Your task to perform on an android device: Open a new window in Chrome Image 0: 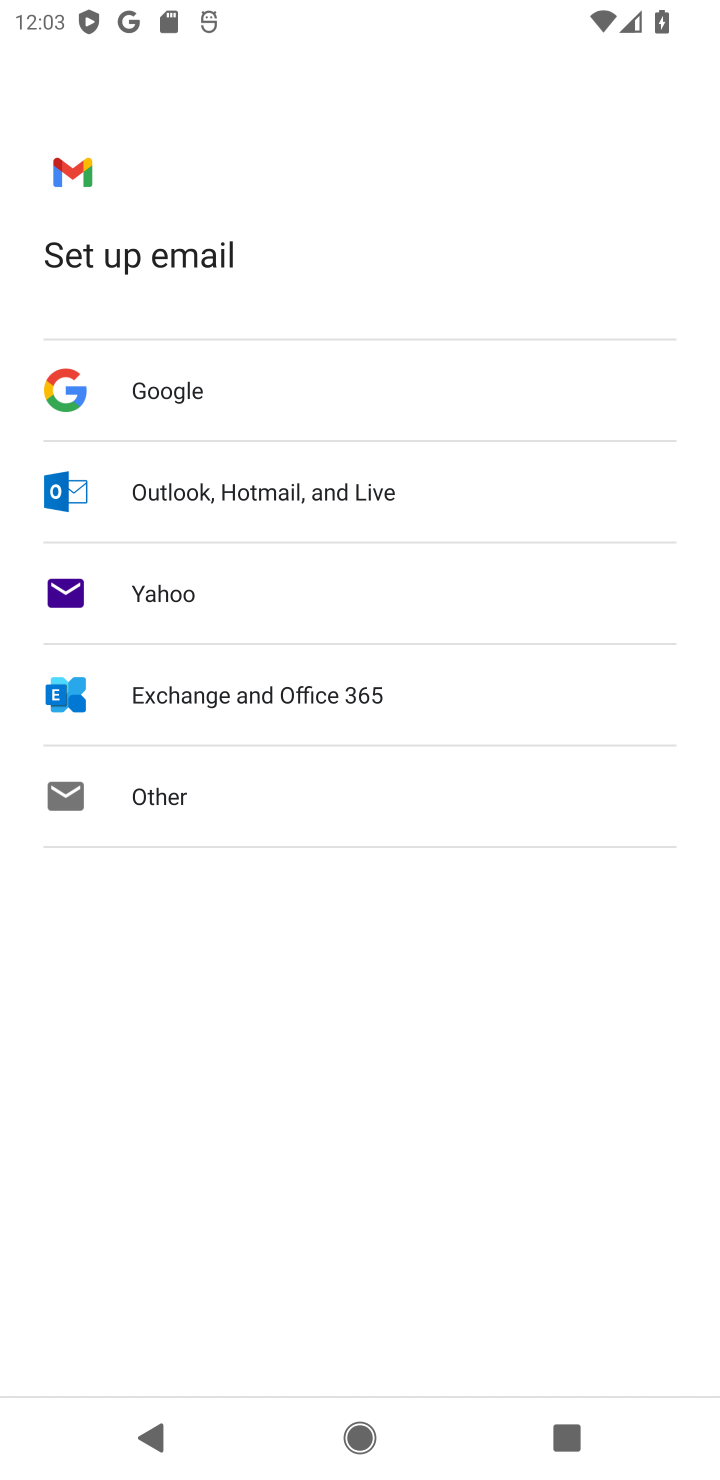
Step 0: press home button
Your task to perform on an android device: Open a new window in Chrome Image 1: 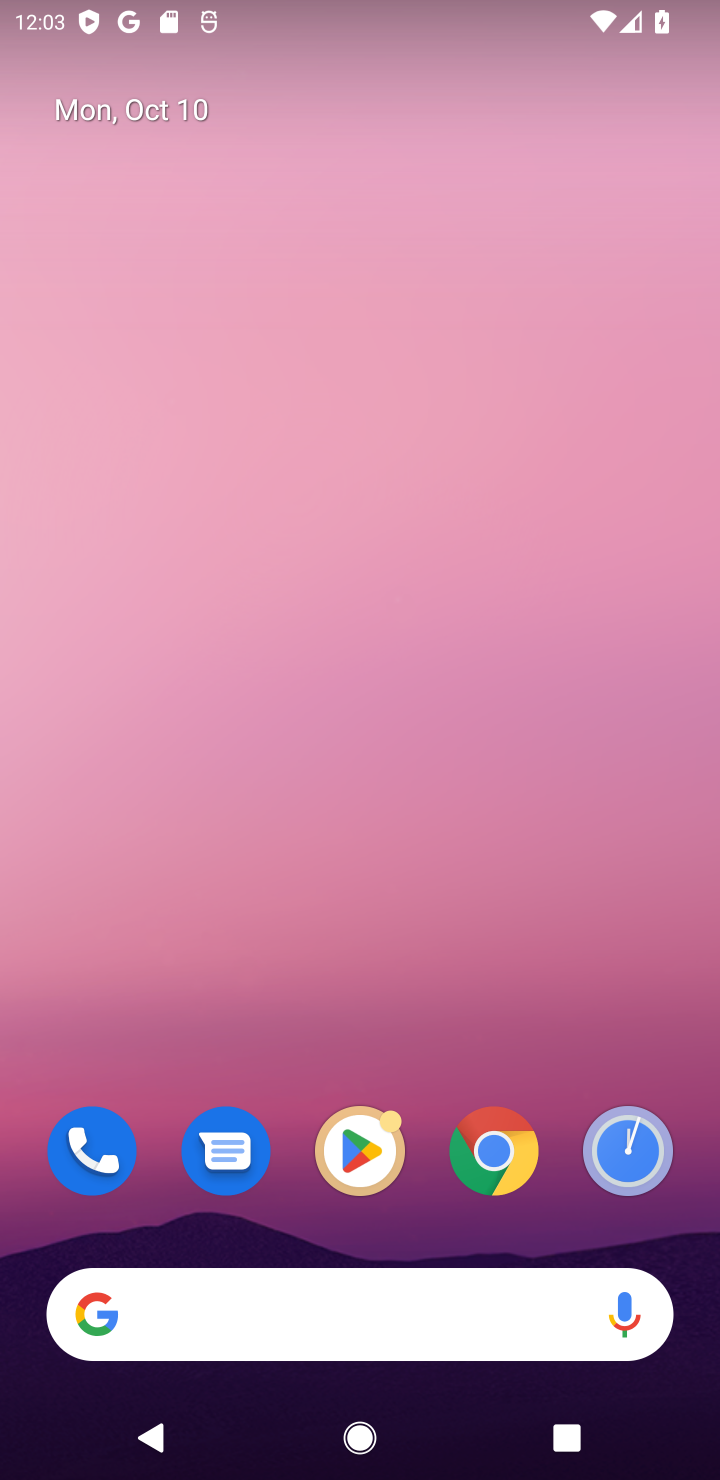
Step 1: click (492, 1158)
Your task to perform on an android device: Open a new window in Chrome Image 2: 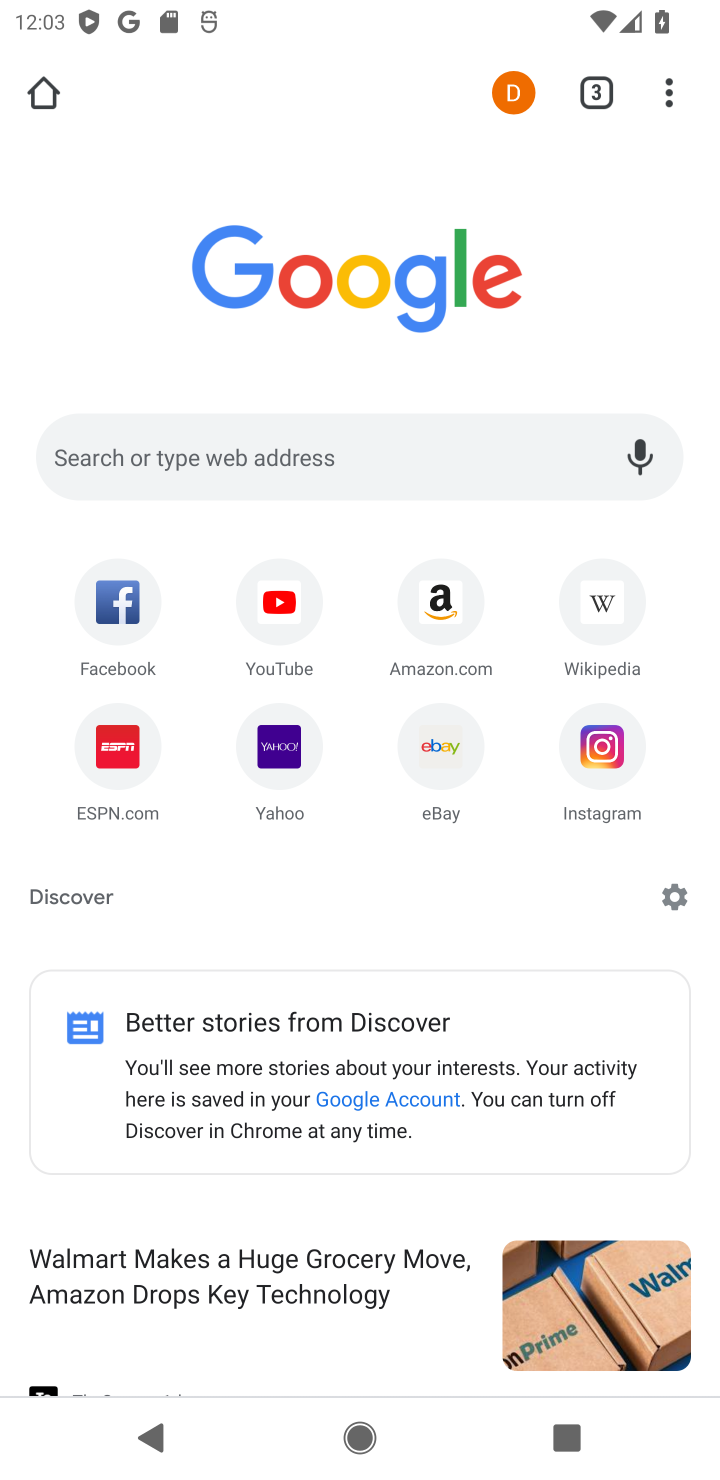
Step 2: click (663, 98)
Your task to perform on an android device: Open a new window in Chrome Image 3: 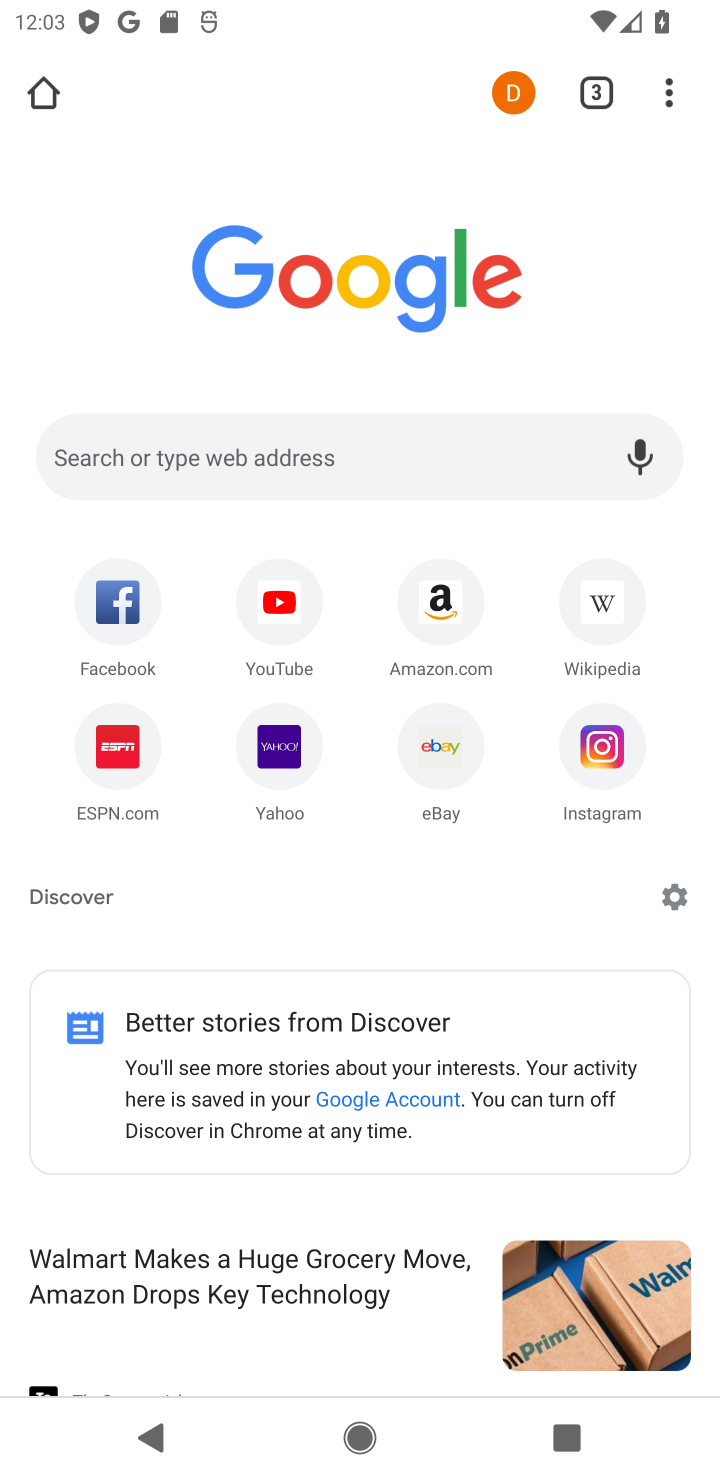
Step 3: click (663, 108)
Your task to perform on an android device: Open a new window in Chrome Image 4: 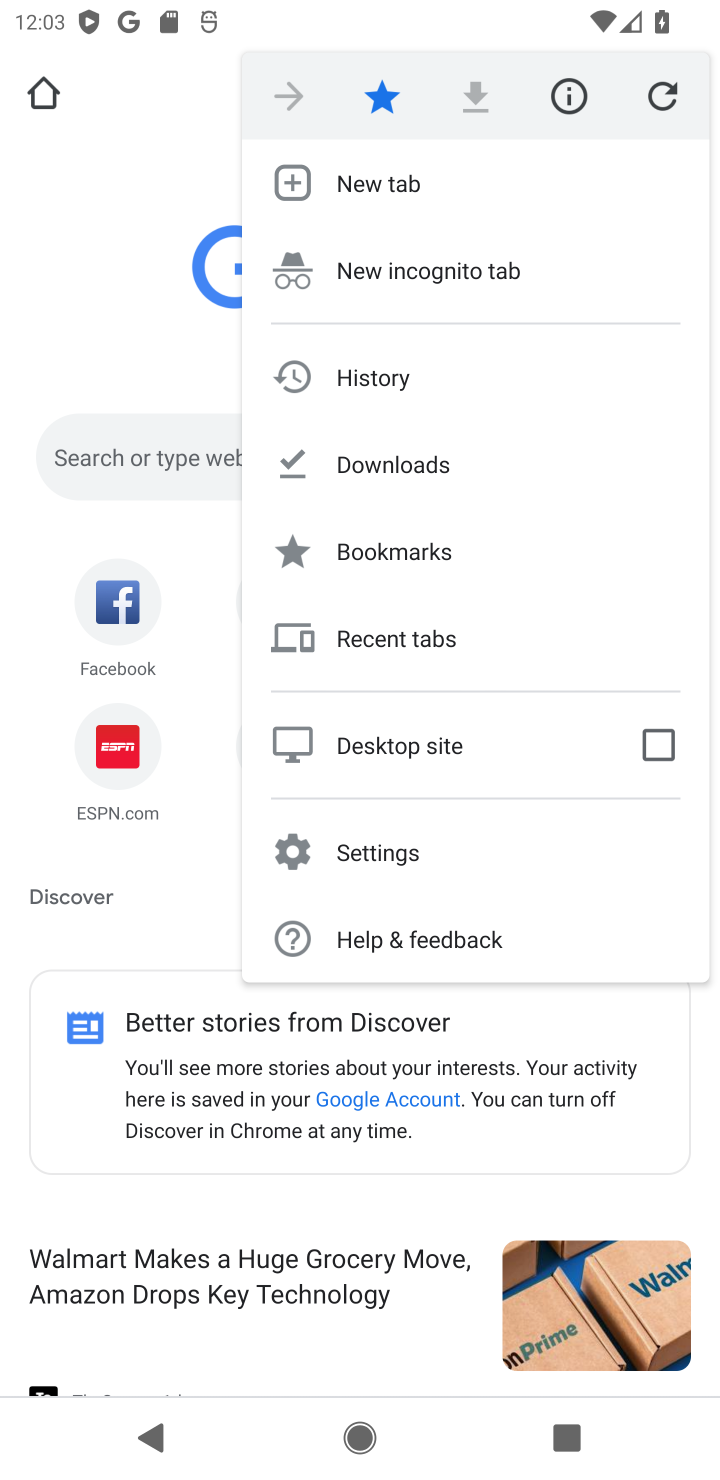
Step 4: click (363, 181)
Your task to perform on an android device: Open a new window in Chrome Image 5: 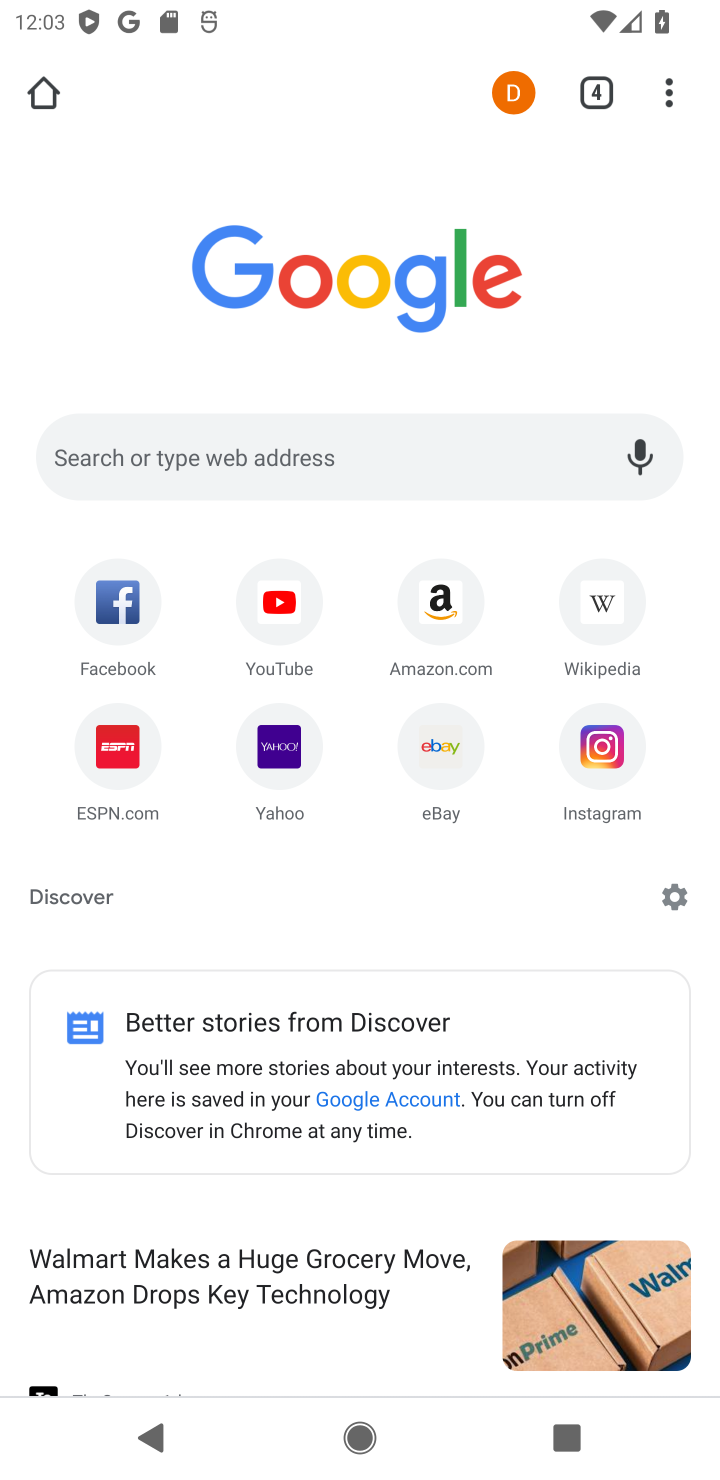
Step 5: task complete